Your task to perform on an android device: Search for Italian restaurants on Maps Image 0: 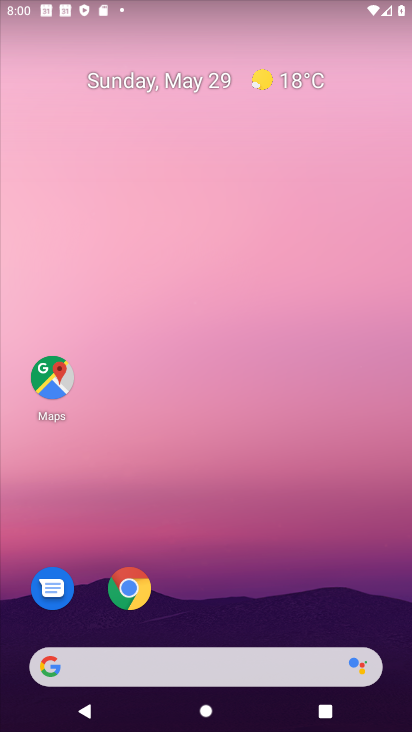
Step 0: click (59, 374)
Your task to perform on an android device: Search for Italian restaurants on Maps Image 1: 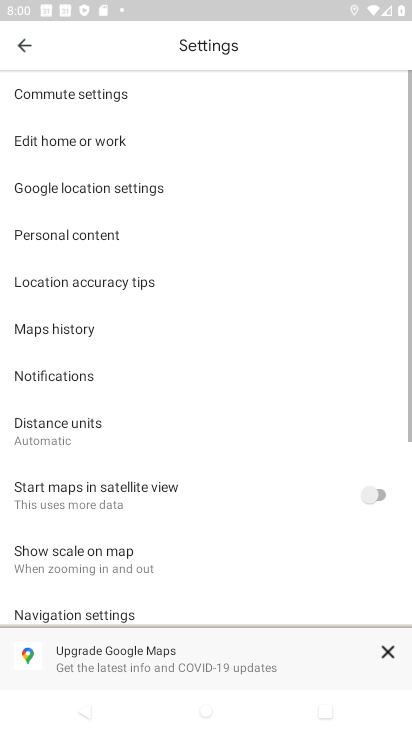
Step 1: press back button
Your task to perform on an android device: Search for Italian restaurants on Maps Image 2: 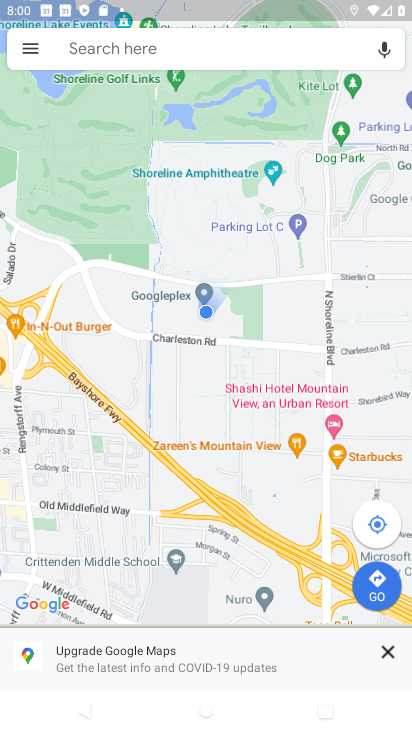
Step 2: click (145, 43)
Your task to perform on an android device: Search for Italian restaurants on Maps Image 3: 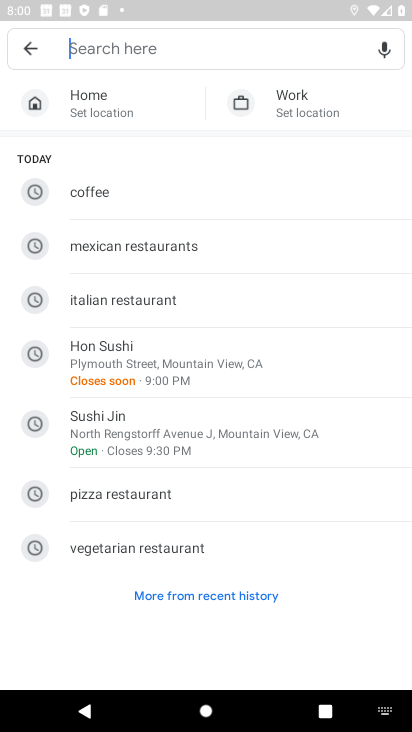
Step 3: type "italian restaurent"
Your task to perform on an android device: Search for Italian restaurants on Maps Image 4: 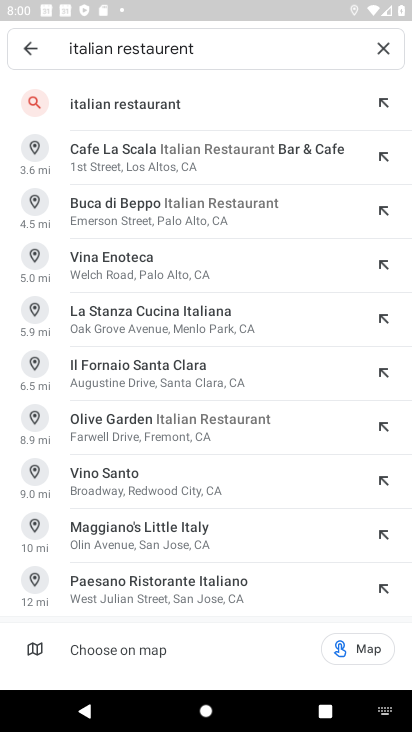
Step 4: click (161, 112)
Your task to perform on an android device: Search for Italian restaurants on Maps Image 5: 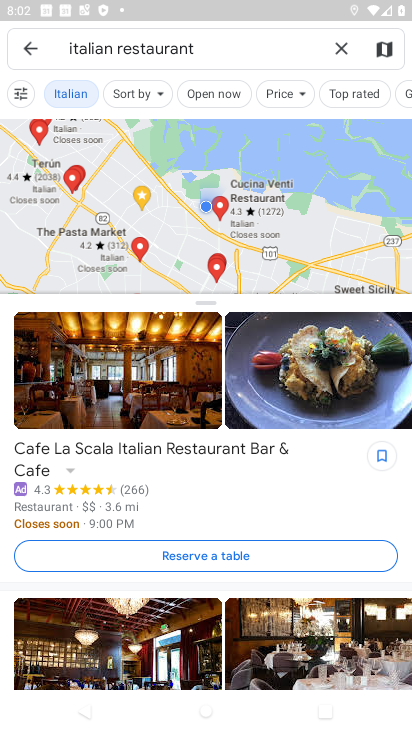
Step 5: task complete